Your task to perform on an android device: read, delete, or share a saved page in the chrome app Image 0: 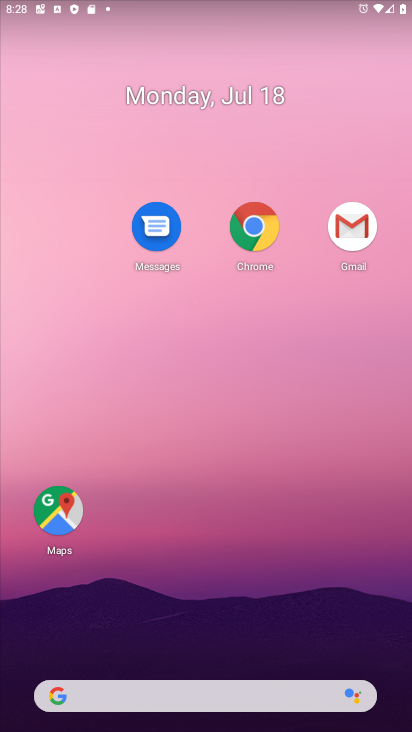
Step 0: press home button
Your task to perform on an android device: read, delete, or share a saved page in the chrome app Image 1: 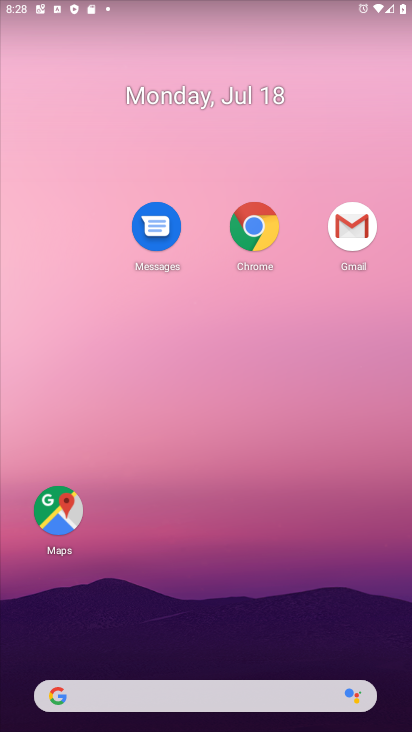
Step 1: click (249, 223)
Your task to perform on an android device: read, delete, or share a saved page in the chrome app Image 2: 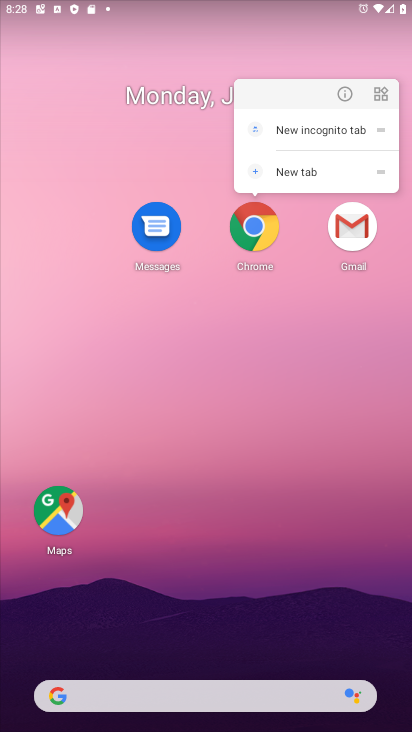
Step 2: click (240, 229)
Your task to perform on an android device: read, delete, or share a saved page in the chrome app Image 3: 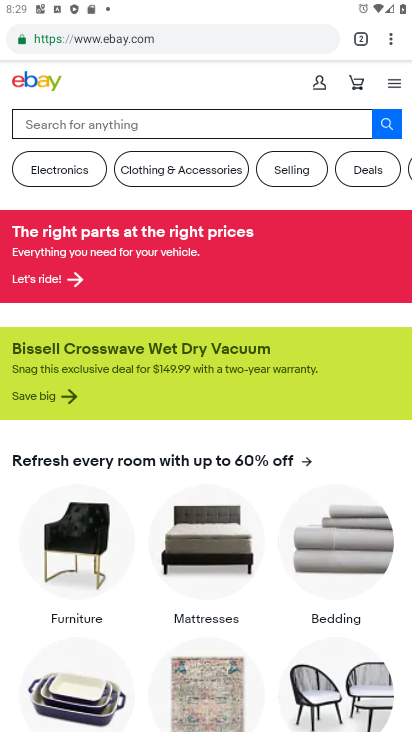
Step 3: click (387, 46)
Your task to perform on an android device: read, delete, or share a saved page in the chrome app Image 4: 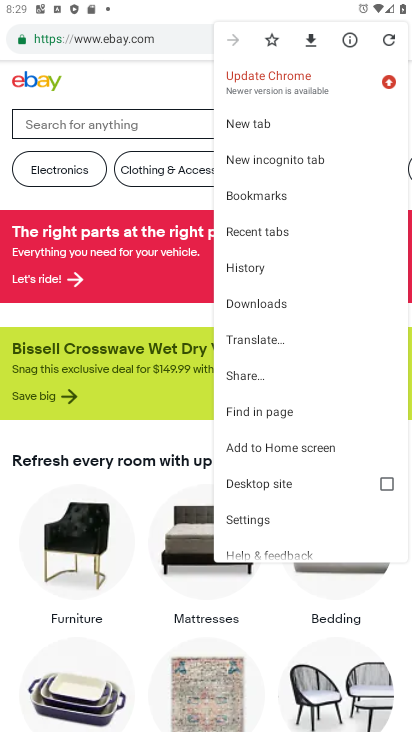
Step 4: click (280, 294)
Your task to perform on an android device: read, delete, or share a saved page in the chrome app Image 5: 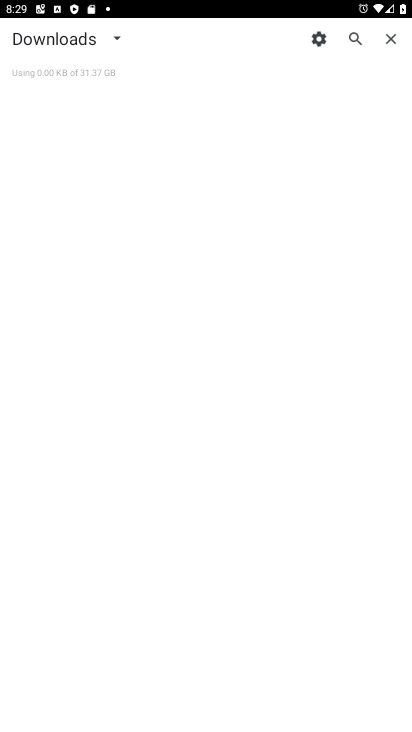
Step 5: task complete